Your task to perform on an android device: turn on showing notifications on the lock screen Image 0: 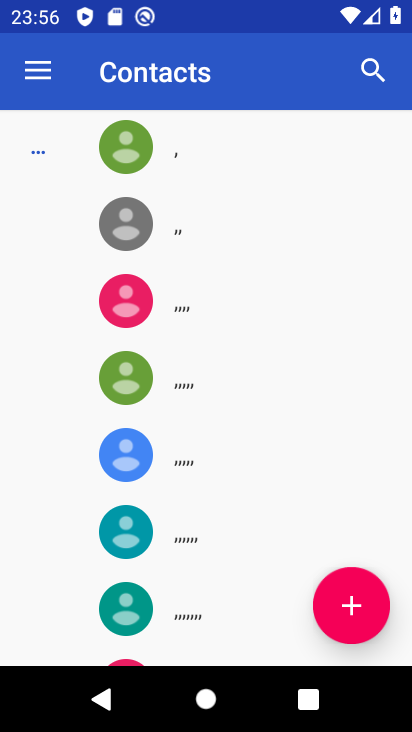
Step 0: press home button
Your task to perform on an android device: turn on showing notifications on the lock screen Image 1: 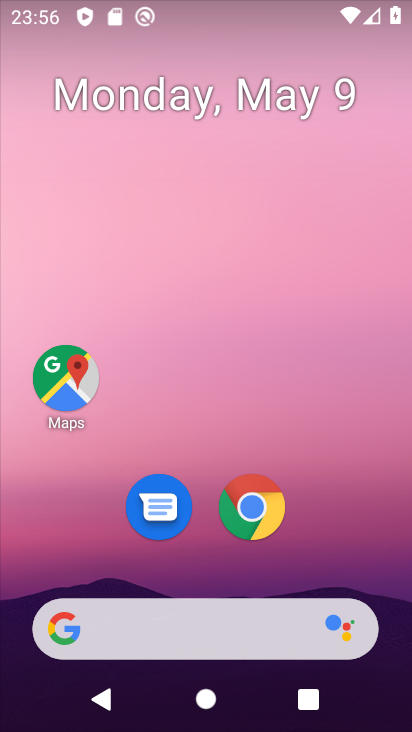
Step 1: drag from (333, 557) to (289, 136)
Your task to perform on an android device: turn on showing notifications on the lock screen Image 2: 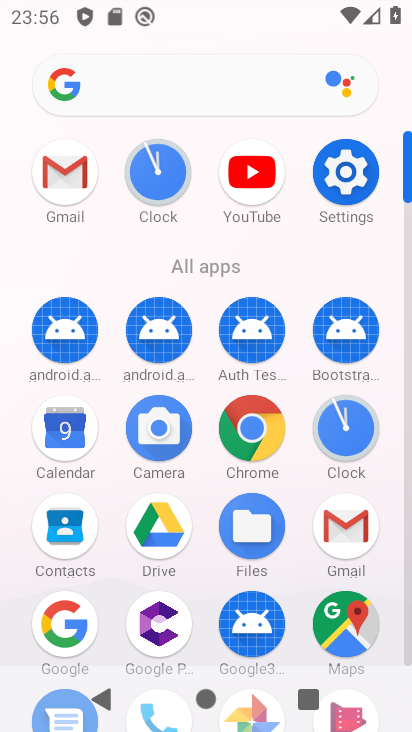
Step 2: click (358, 178)
Your task to perform on an android device: turn on showing notifications on the lock screen Image 3: 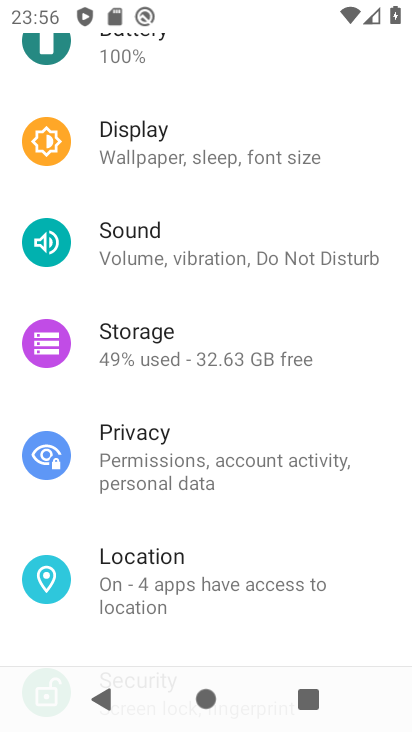
Step 3: drag from (218, 221) to (213, 537)
Your task to perform on an android device: turn on showing notifications on the lock screen Image 4: 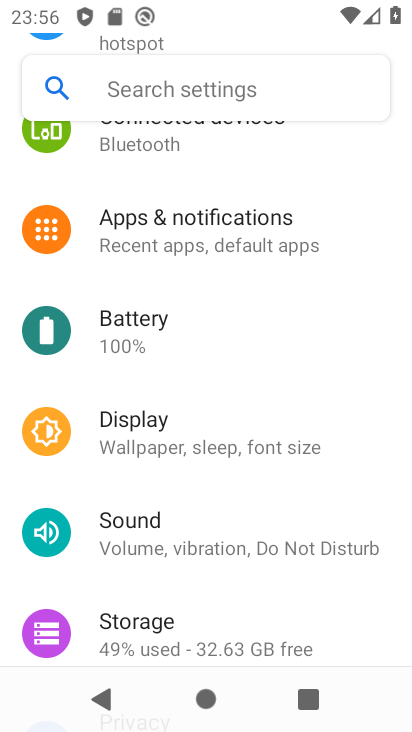
Step 4: click (173, 244)
Your task to perform on an android device: turn on showing notifications on the lock screen Image 5: 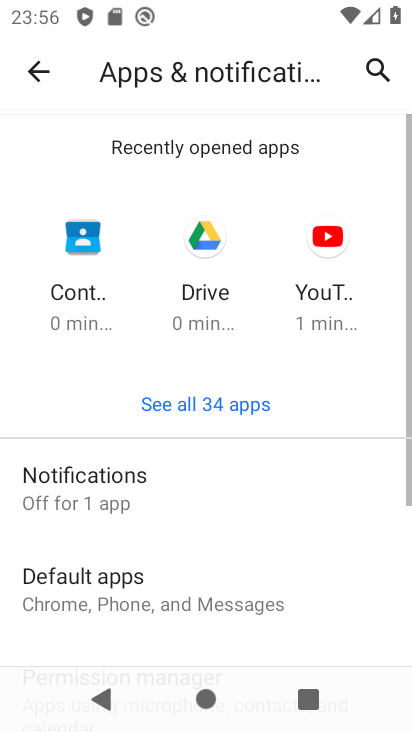
Step 5: click (145, 480)
Your task to perform on an android device: turn on showing notifications on the lock screen Image 6: 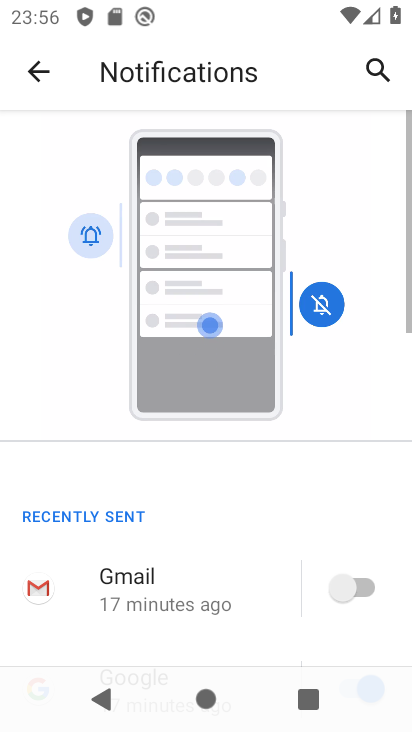
Step 6: drag from (190, 509) to (179, 349)
Your task to perform on an android device: turn on showing notifications on the lock screen Image 7: 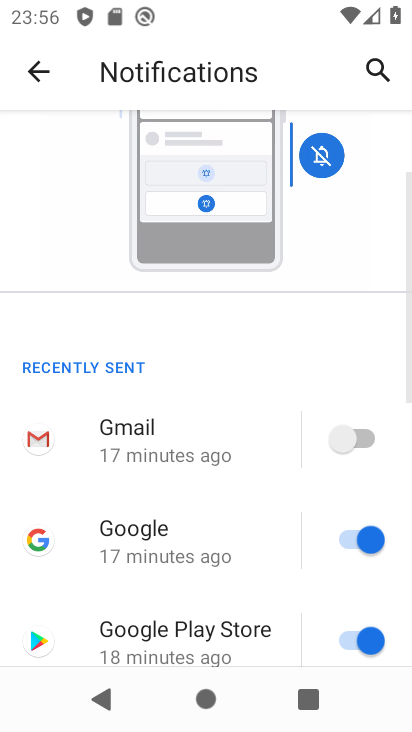
Step 7: drag from (166, 614) to (146, 405)
Your task to perform on an android device: turn on showing notifications on the lock screen Image 8: 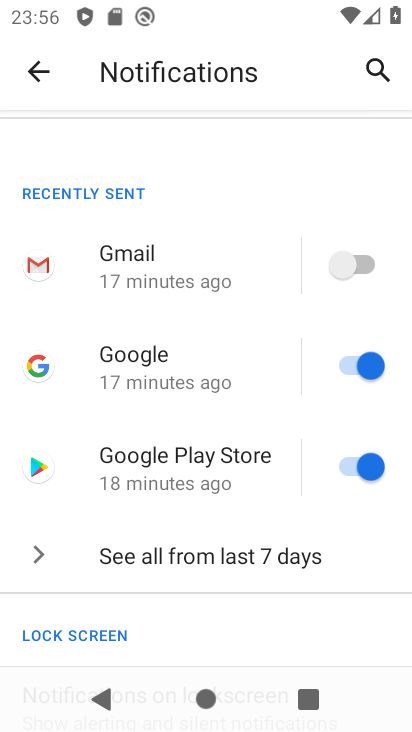
Step 8: drag from (138, 571) to (119, 433)
Your task to perform on an android device: turn on showing notifications on the lock screen Image 9: 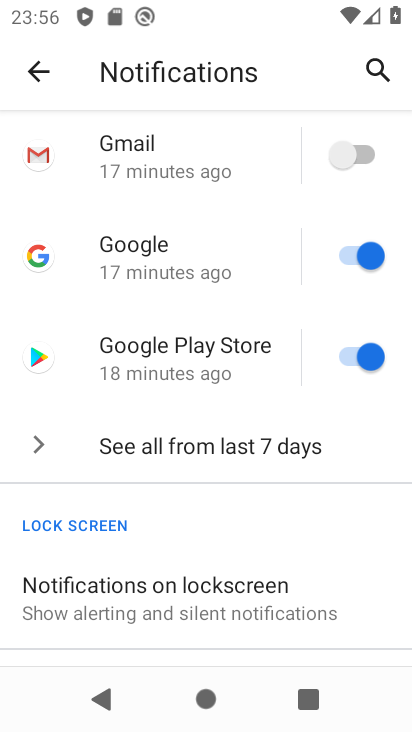
Step 9: drag from (129, 584) to (117, 494)
Your task to perform on an android device: turn on showing notifications on the lock screen Image 10: 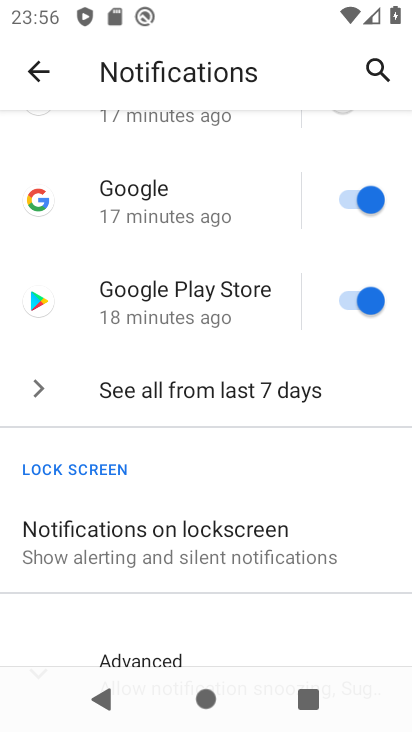
Step 10: click (119, 530)
Your task to perform on an android device: turn on showing notifications on the lock screen Image 11: 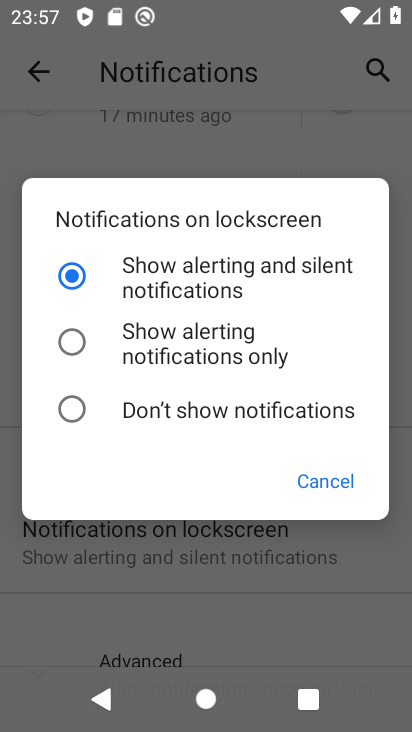
Step 11: task complete